Your task to perform on an android device: install app "Flipkart Online Shopping App" Image 0: 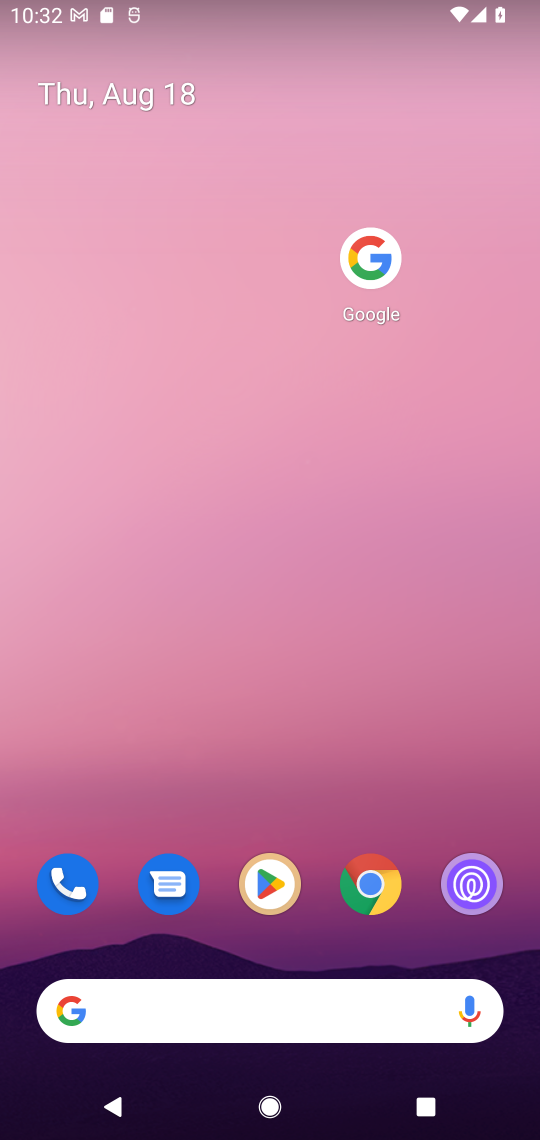
Step 0: drag from (295, 962) to (318, 289)
Your task to perform on an android device: install app "Flipkart Online Shopping App" Image 1: 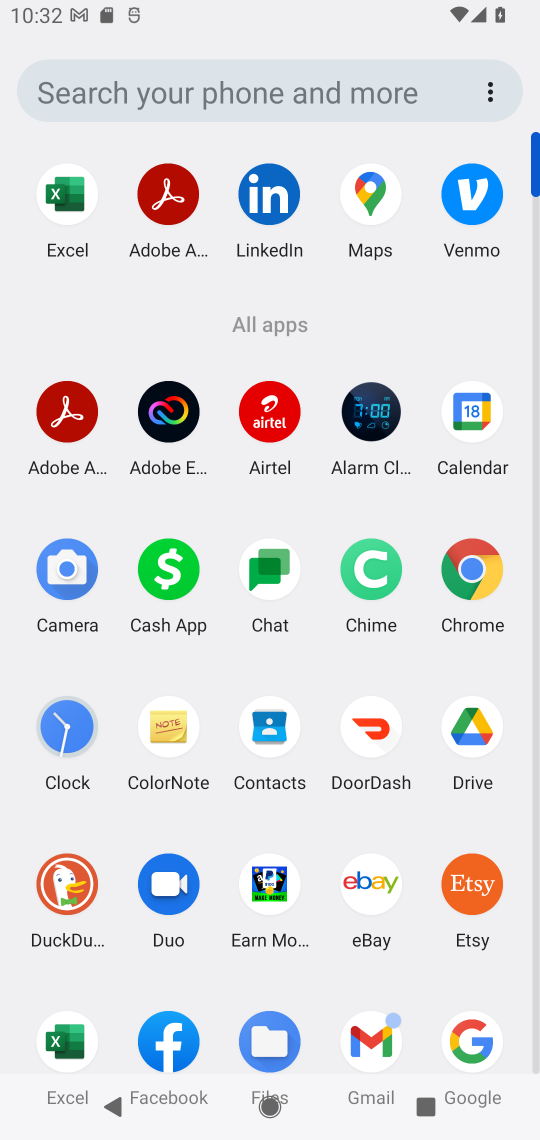
Step 1: task complete